Your task to perform on an android device: Search for Mexican restaurants on Maps Image 0: 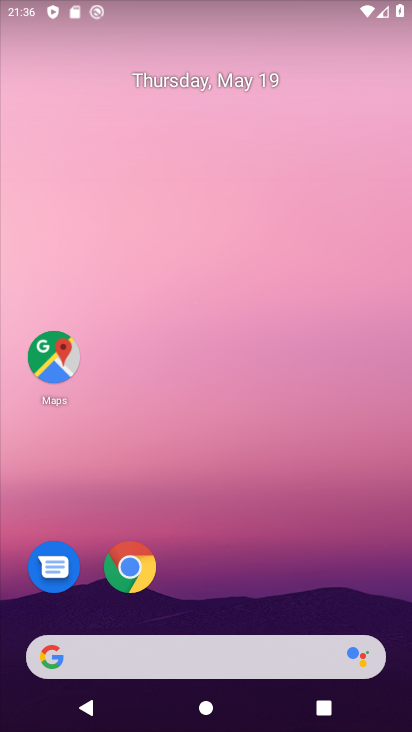
Step 0: click (50, 346)
Your task to perform on an android device: Search for Mexican restaurants on Maps Image 1: 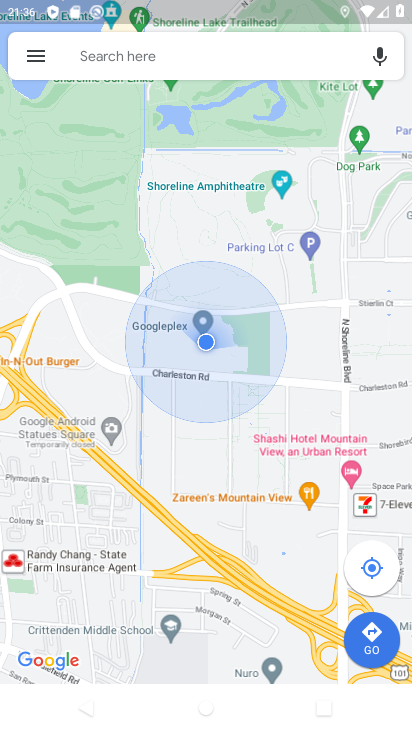
Step 1: click (112, 55)
Your task to perform on an android device: Search for Mexican restaurants on Maps Image 2: 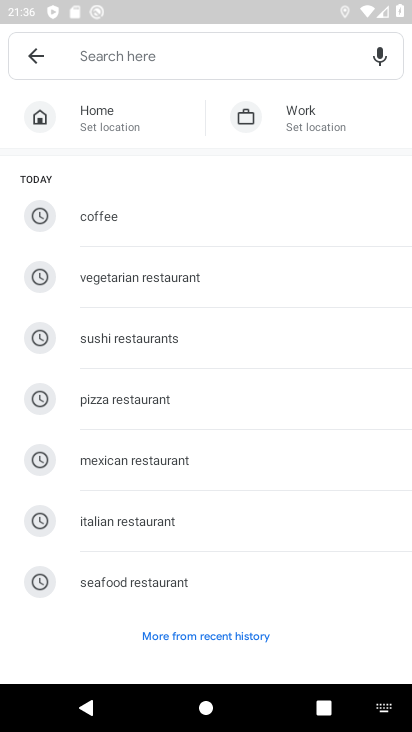
Step 2: click (173, 460)
Your task to perform on an android device: Search for Mexican restaurants on Maps Image 3: 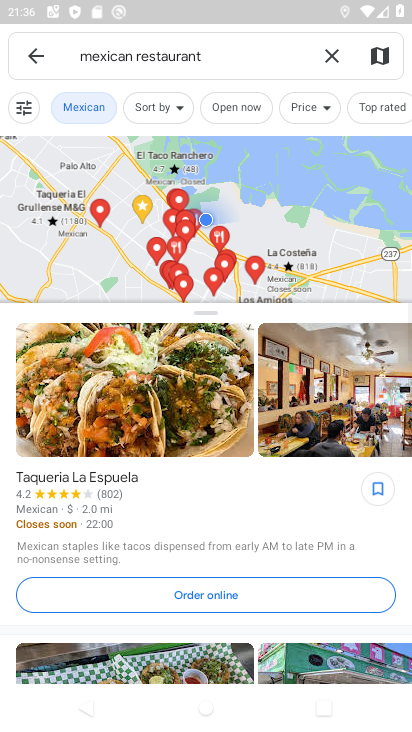
Step 3: task complete